Your task to perform on an android device: Open network settings Image 0: 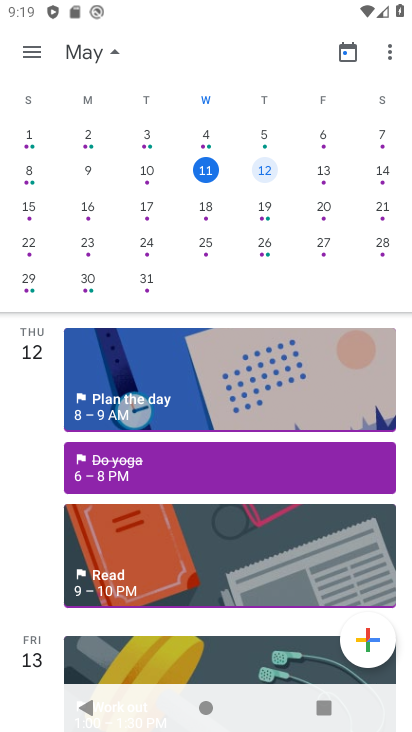
Step 0: press home button
Your task to perform on an android device: Open network settings Image 1: 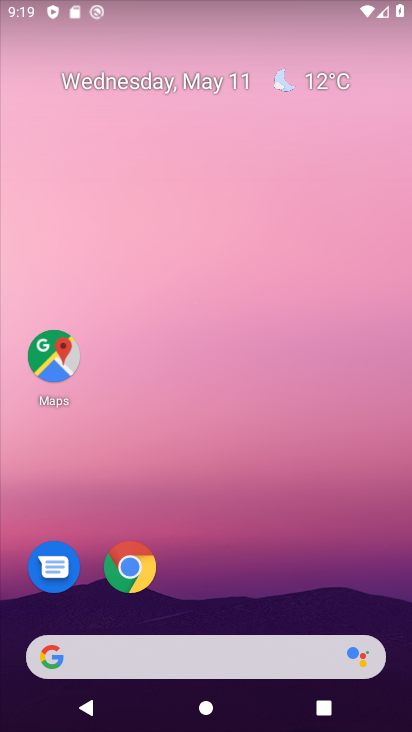
Step 1: drag from (298, 509) to (291, 12)
Your task to perform on an android device: Open network settings Image 2: 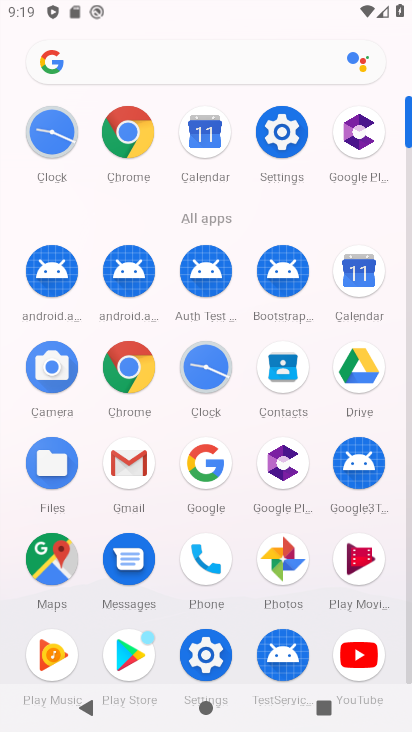
Step 2: click (276, 129)
Your task to perform on an android device: Open network settings Image 3: 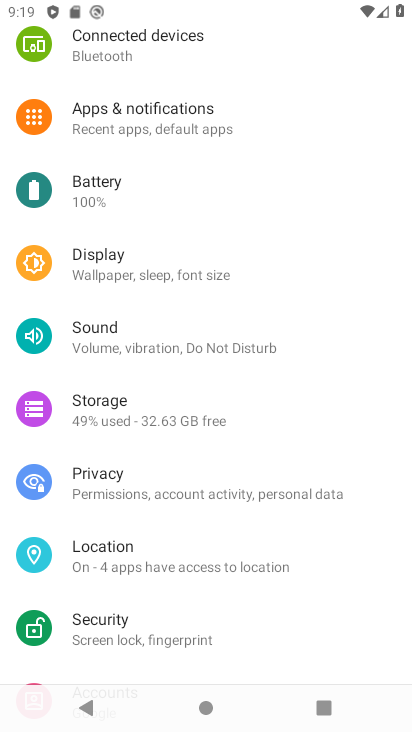
Step 3: drag from (207, 219) to (241, 731)
Your task to perform on an android device: Open network settings Image 4: 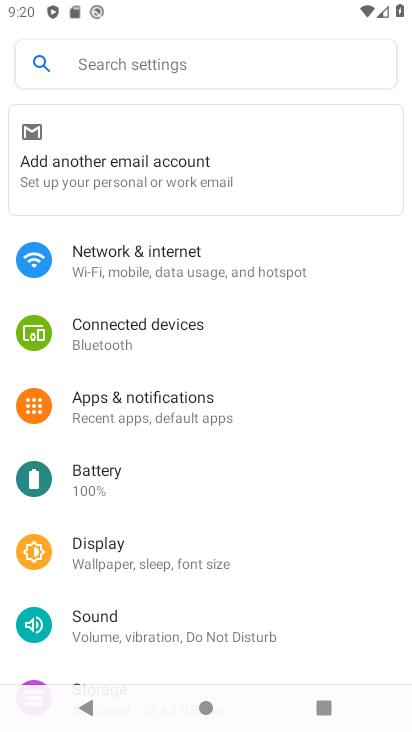
Step 4: click (239, 269)
Your task to perform on an android device: Open network settings Image 5: 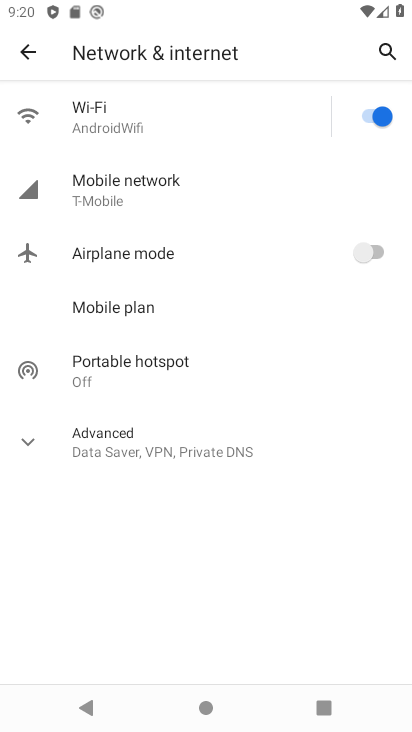
Step 5: task complete